Your task to perform on an android device: Search for the ikea billy bookcase Image 0: 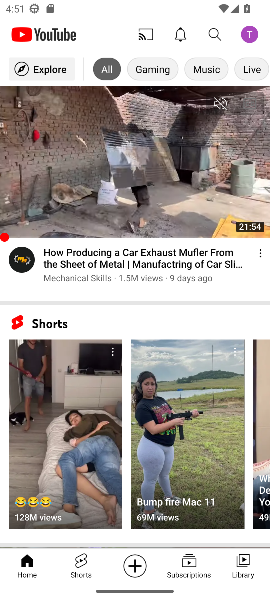
Step 0: press home button
Your task to perform on an android device: Search for the ikea billy bookcase Image 1: 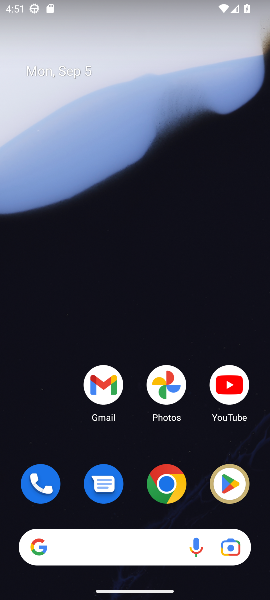
Step 1: click (171, 484)
Your task to perform on an android device: Search for the ikea billy bookcase Image 2: 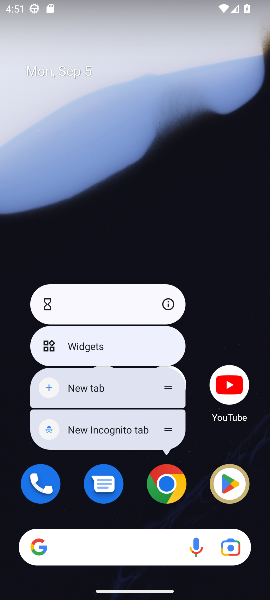
Step 2: click (171, 485)
Your task to perform on an android device: Search for the ikea billy bookcase Image 3: 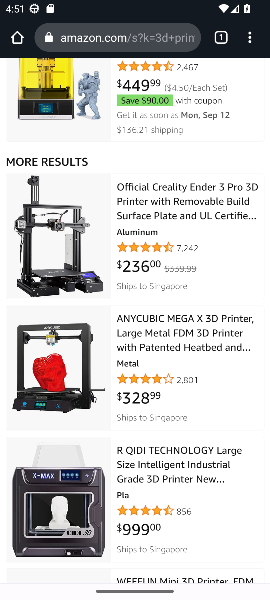
Step 3: click (140, 34)
Your task to perform on an android device: Search for the ikea billy bookcase Image 4: 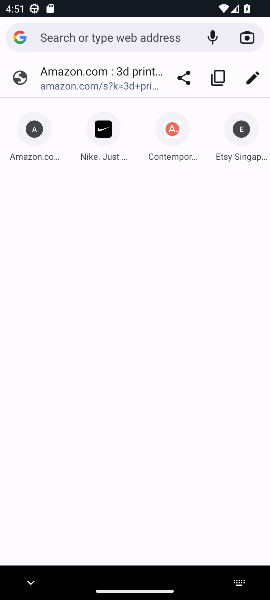
Step 4: type "ikea billy bookcase"
Your task to perform on an android device: Search for the ikea billy bookcase Image 5: 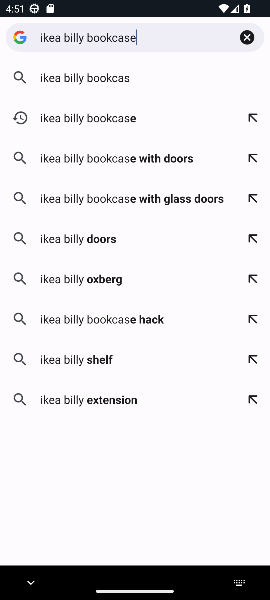
Step 5: press enter
Your task to perform on an android device: Search for the ikea billy bookcase Image 6: 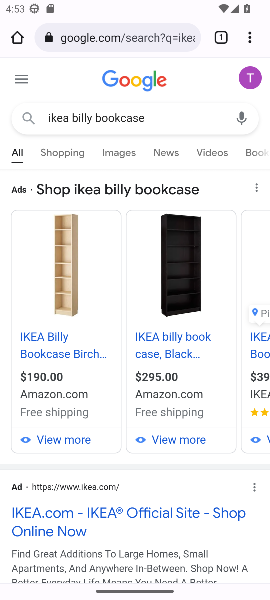
Step 6: task complete